Your task to perform on an android device: Open location settings Image 0: 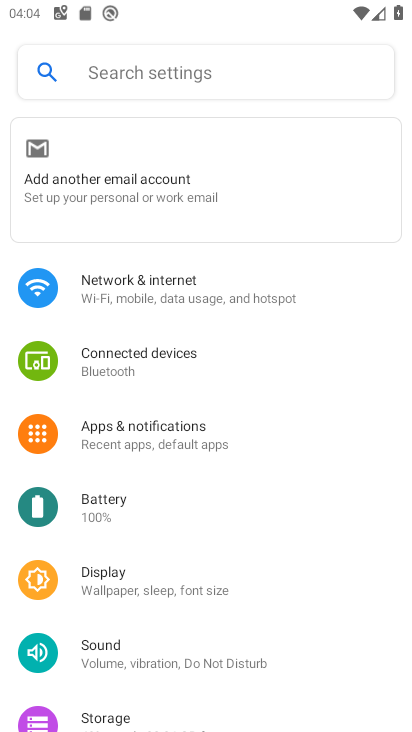
Step 0: drag from (160, 646) to (212, 258)
Your task to perform on an android device: Open location settings Image 1: 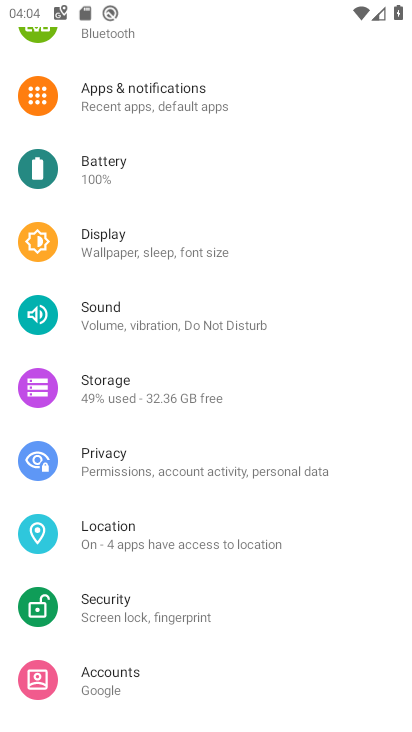
Step 1: click (150, 528)
Your task to perform on an android device: Open location settings Image 2: 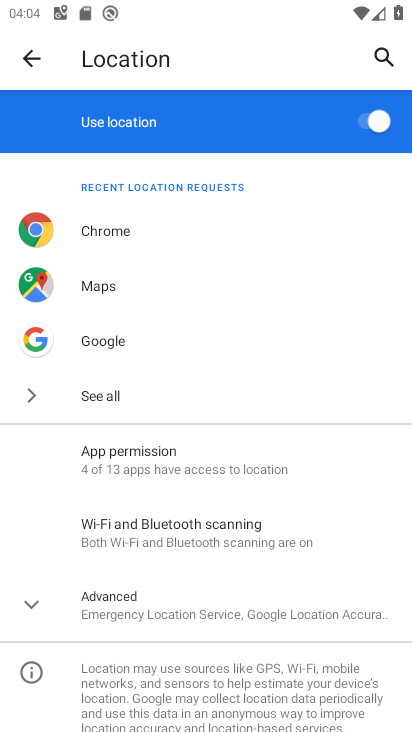
Step 2: task complete